Your task to perform on an android device: Do I have any events this weekend? Image 0: 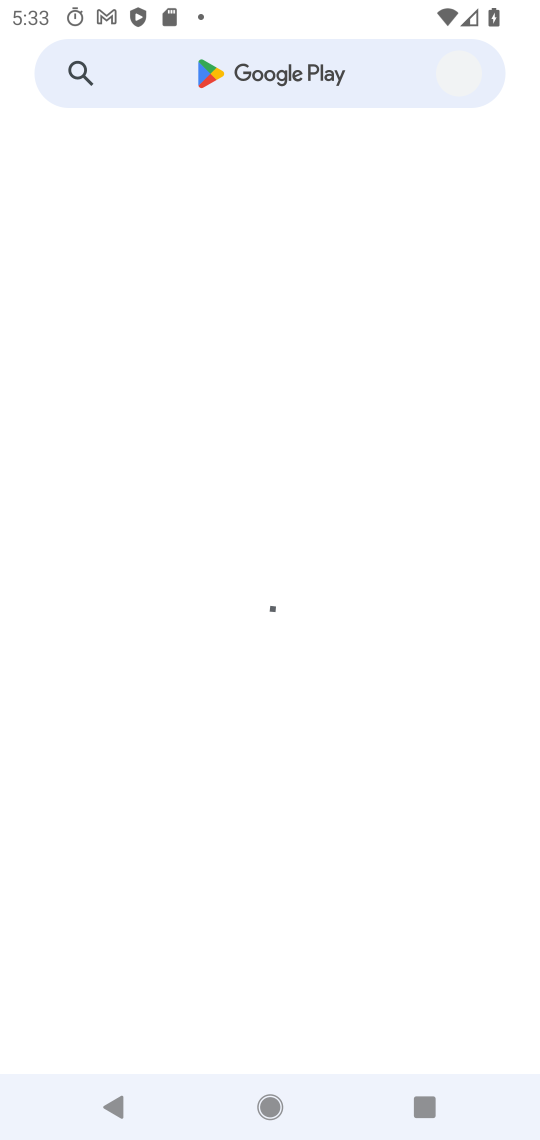
Step 0: press home button
Your task to perform on an android device: Do I have any events this weekend? Image 1: 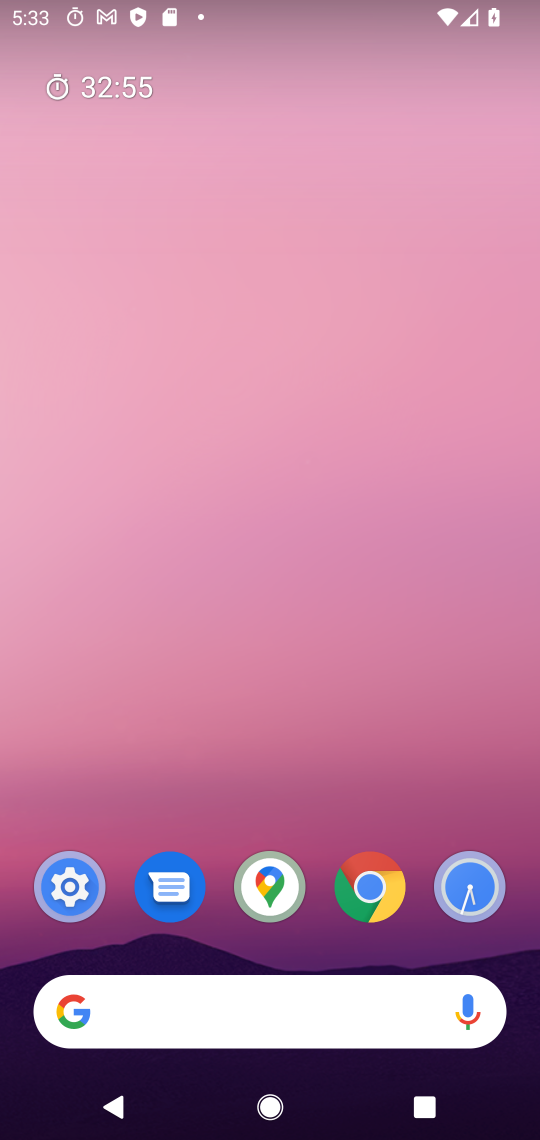
Step 1: drag from (515, 1076) to (428, 174)
Your task to perform on an android device: Do I have any events this weekend? Image 2: 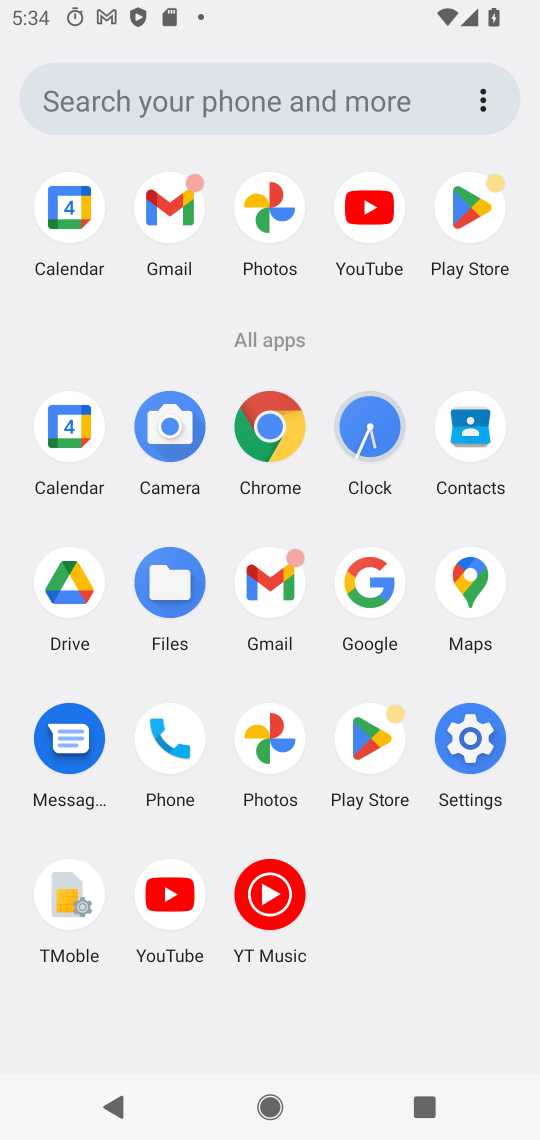
Step 2: click (65, 458)
Your task to perform on an android device: Do I have any events this weekend? Image 3: 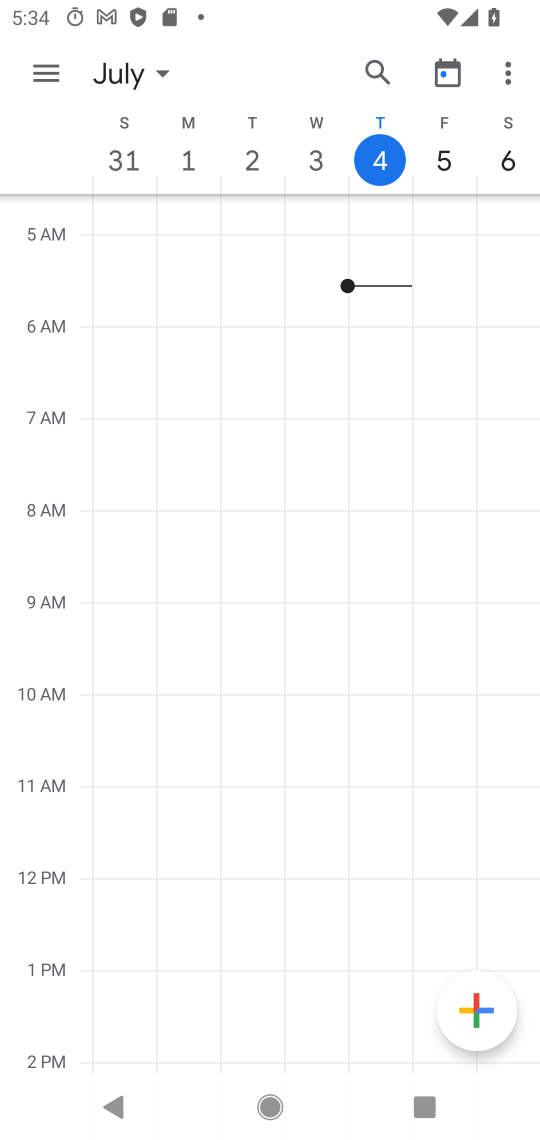
Step 3: click (46, 82)
Your task to perform on an android device: Do I have any events this weekend? Image 4: 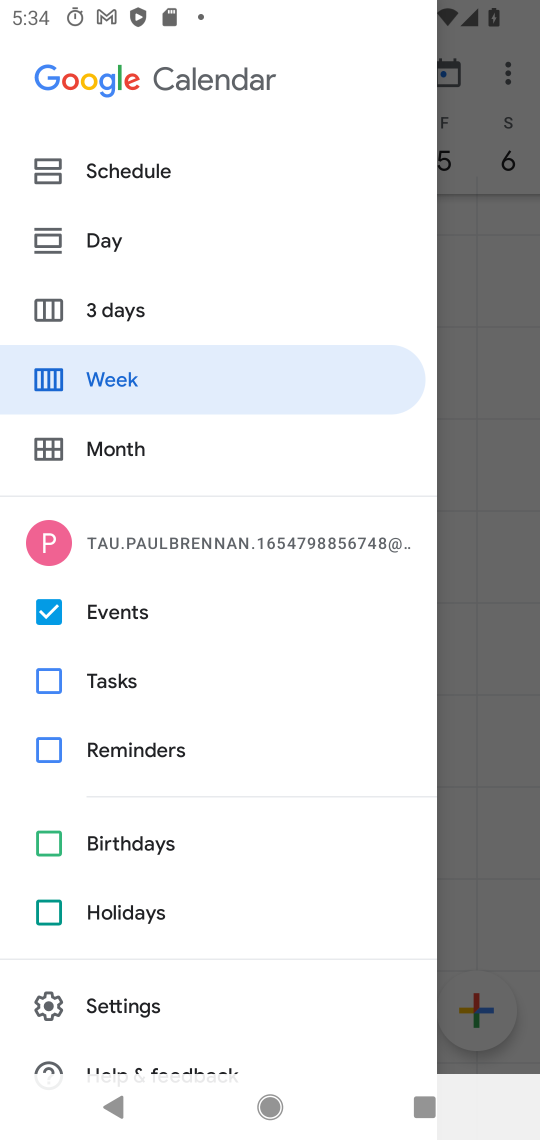
Step 4: click (109, 377)
Your task to perform on an android device: Do I have any events this weekend? Image 5: 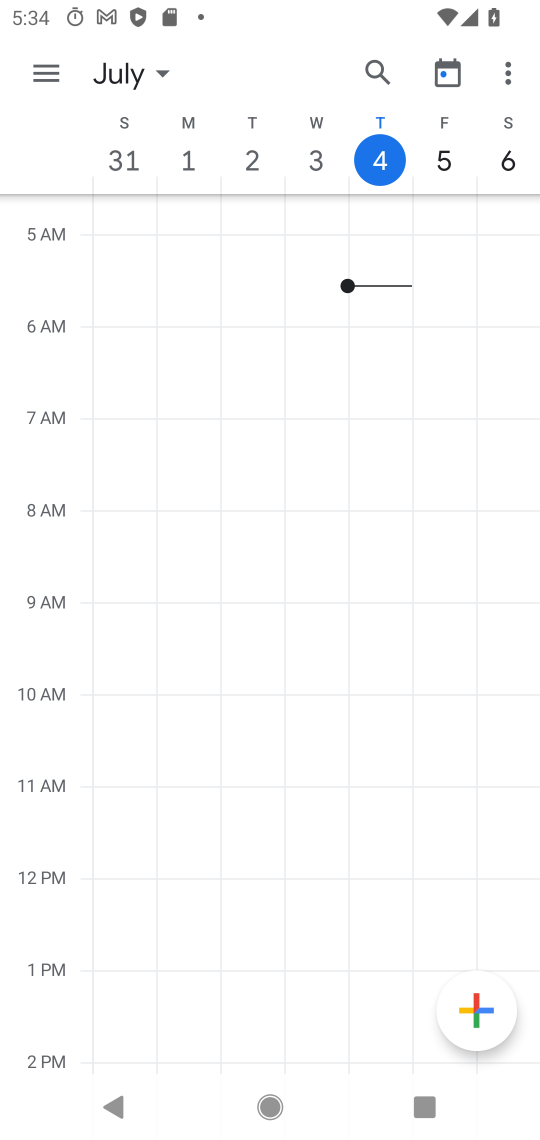
Step 5: click (156, 73)
Your task to perform on an android device: Do I have any events this weekend? Image 6: 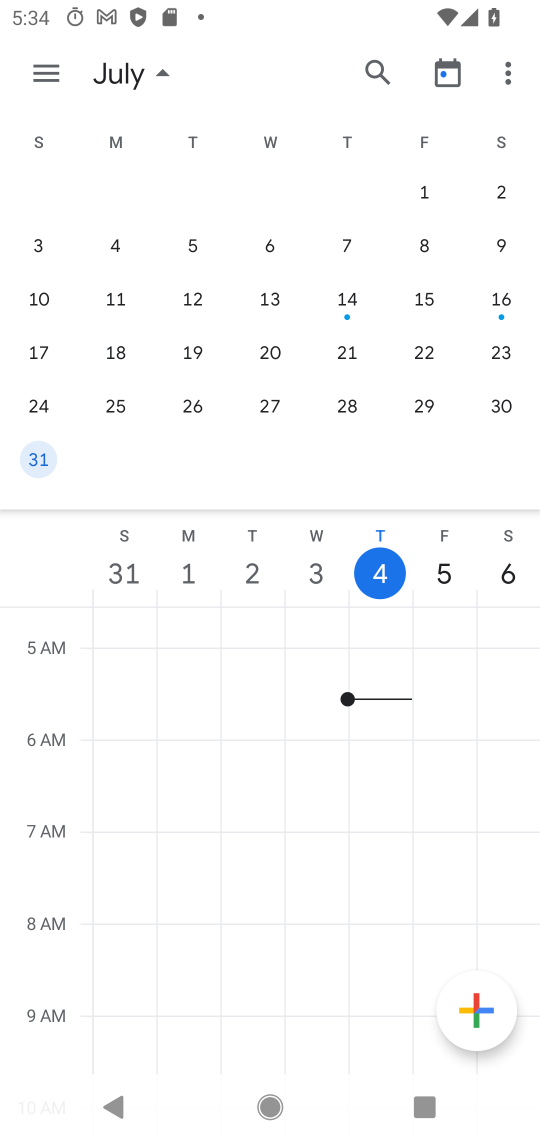
Step 6: drag from (476, 325) to (90, 365)
Your task to perform on an android device: Do I have any events this weekend? Image 7: 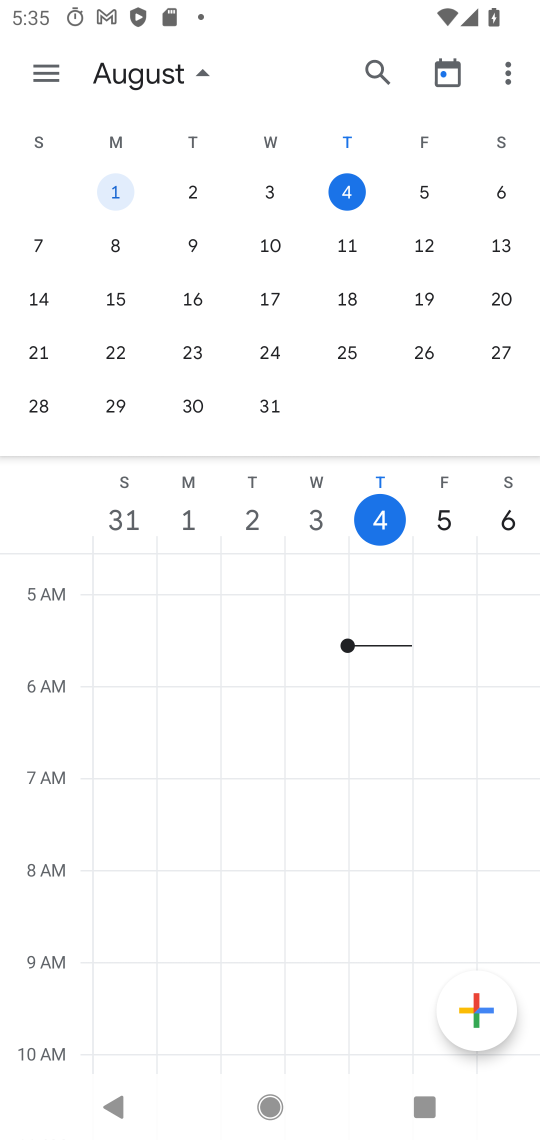
Step 7: click (47, 71)
Your task to perform on an android device: Do I have any events this weekend? Image 8: 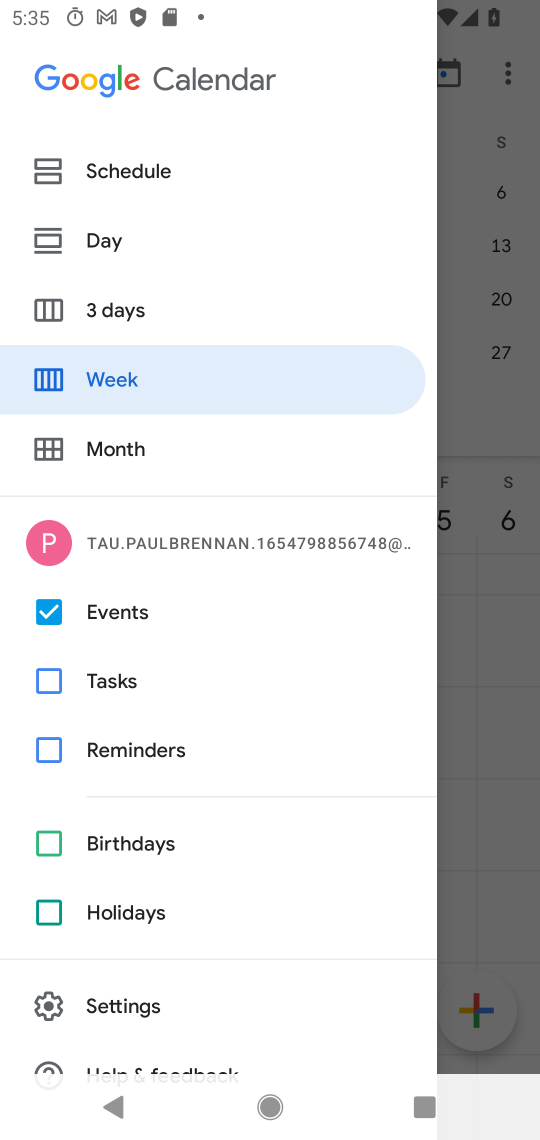
Step 8: click (127, 170)
Your task to perform on an android device: Do I have any events this weekend? Image 9: 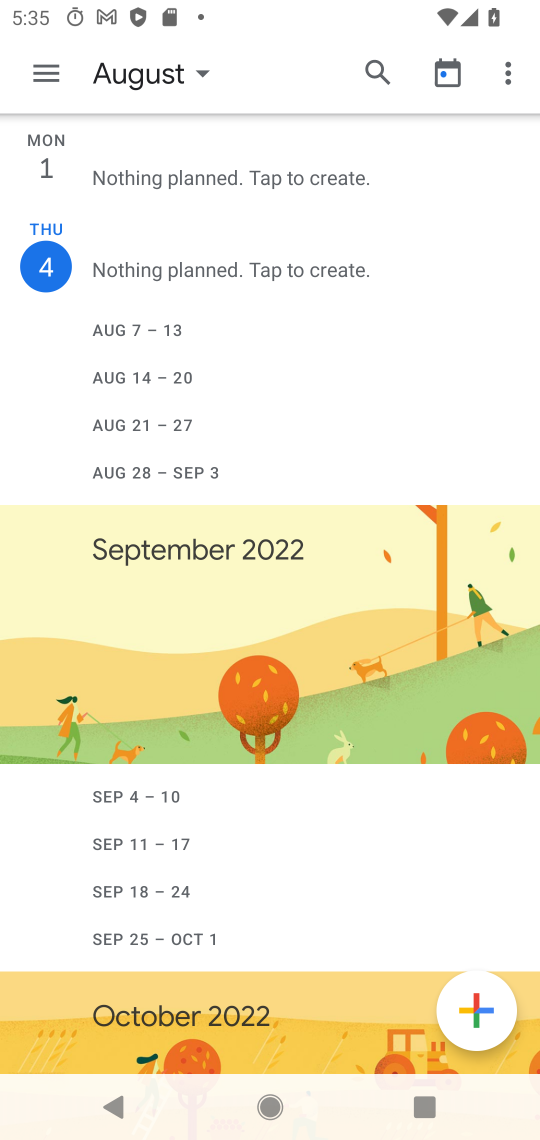
Step 9: task complete